Your task to perform on an android device: Open the web browser Image 0: 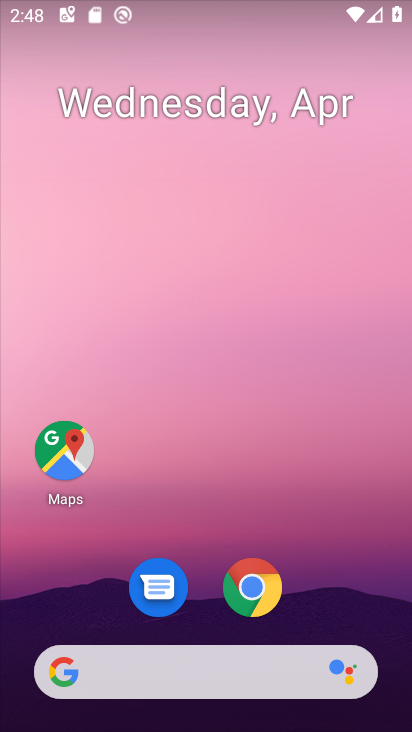
Step 0: drag from (378, 608) to (254, 64)
Your task to perform on an android device: Open the web browser Image 1: 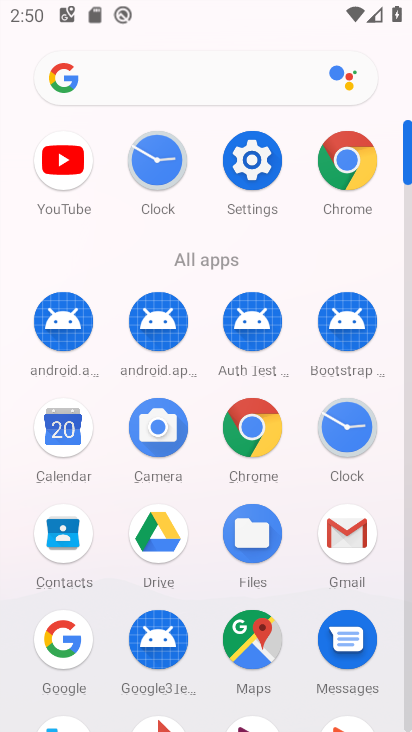
Step 1: task complete